Your task to perform on an android device: choose inbox layout in the gmail app Image 0: 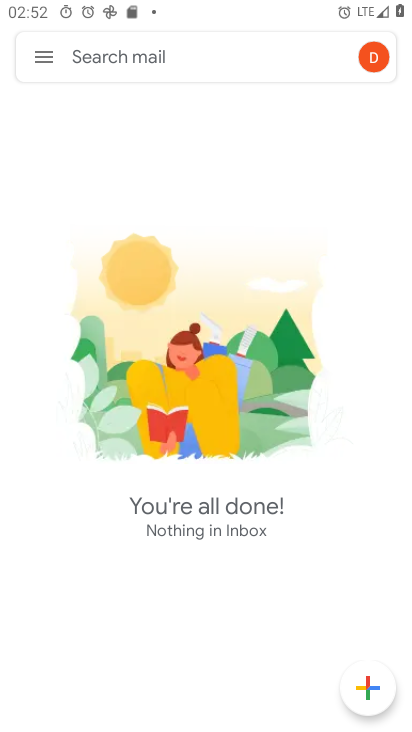
Step 0: press home button
Your task to perform on an android device: choose inbox layout in the gmail app Image 1: 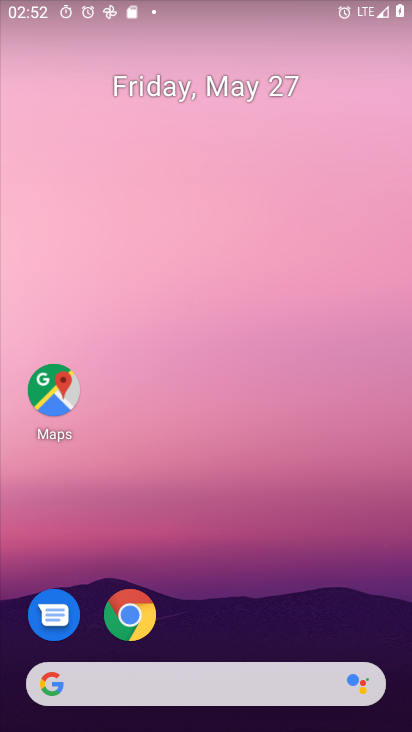
Step 1: drag from (325, 613) to (321, 202)
Your task to perform on an android device: choose inbox layout in the gmail app Image 2: 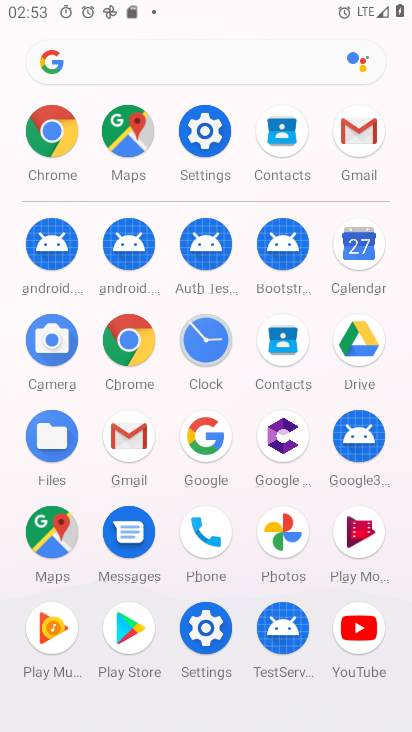
Step 2: click (128, 440)
Your task to perform on an android device: choose inbox layout in the gmail app Image 3: 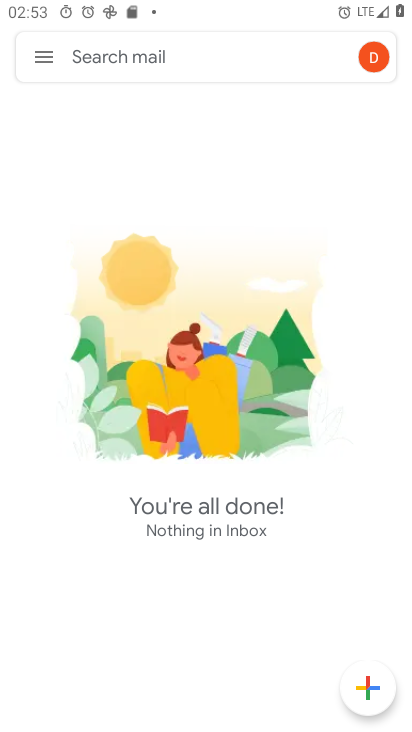
Step 3: click (43, 48)
Your task to perform on an android device: choose inbox layout in the gmail app Image 4: 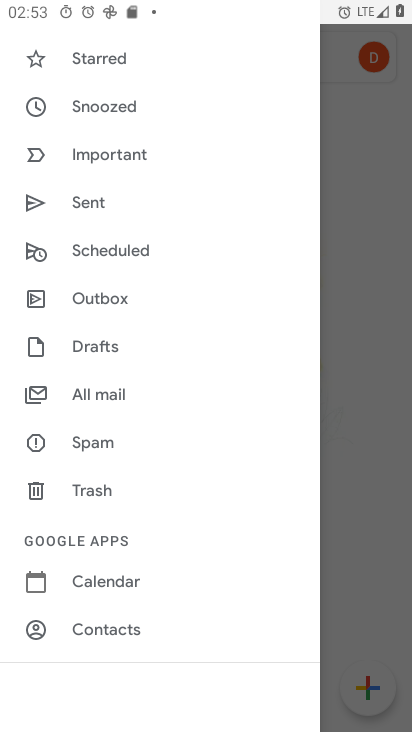
Step 4: drag from (228, 138) to (254, 354)
Your task to perform on an android device: choose inbox layout in the gmail app Image 5: 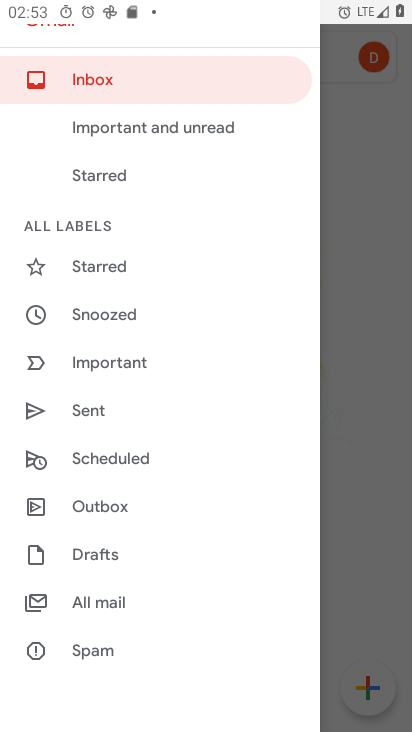
Step 5: click (179, 94)
Your task to perform on an android device: choose inbox layout in the gmail app Image 6: 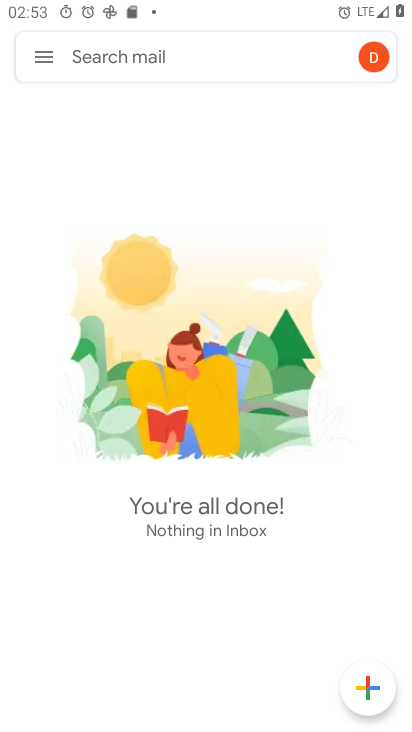
Step 6: click (42, 49)
Your task to perform on an android device: choose inbox layout in the gmail app Image 7: 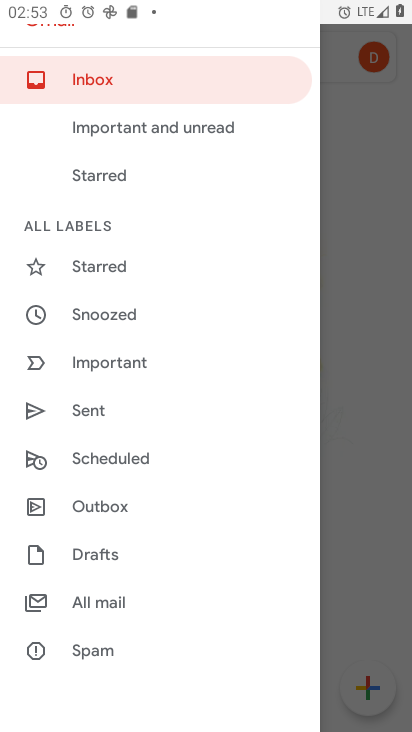
Step 7: drag from (225, 538) to (228, 267)
Your task to perform on an android device: choose inbox layout in the gmail app Image 8: 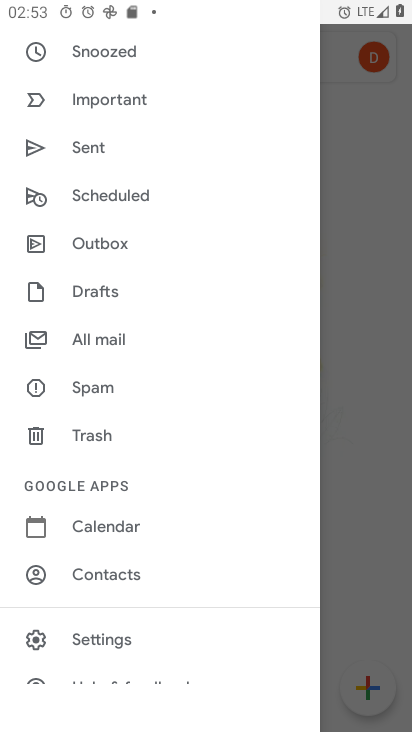
Step 8: click (155, 640)
Your task to perform on an android device: choose inbox layout in the gmail app Image 9: 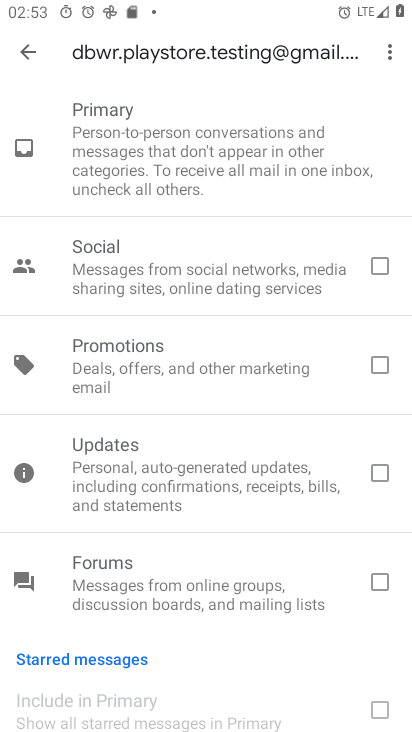
Step 9: click (32, 59)
Your task to perform on an android device: choose inbox layout in the gmail app Image 10: 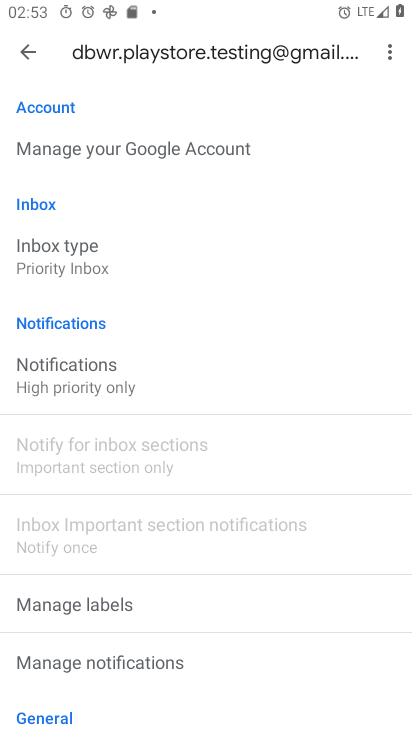
Step 10: click (86, 267)
Your task to perform on an android device: choose inbox layout in the gmail app Image 11: 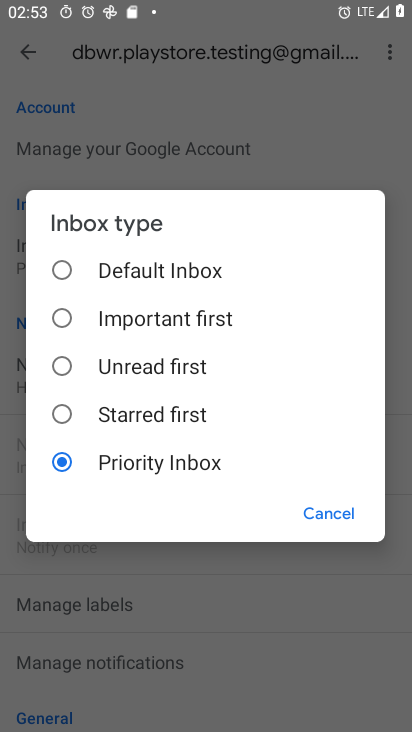
Step 11: click (64, 269)
Your task to perform on an android device: choose inbox layout in the gmail app Image 12: 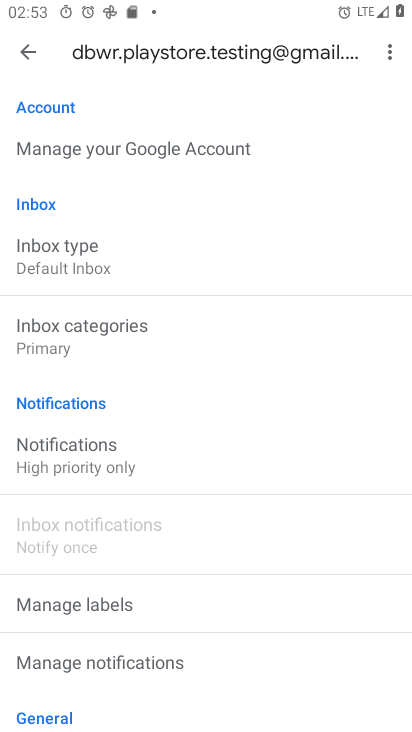
Step 12: task complete